Your task to perform on an android device: refresh tabs in the chrome app Image 0: 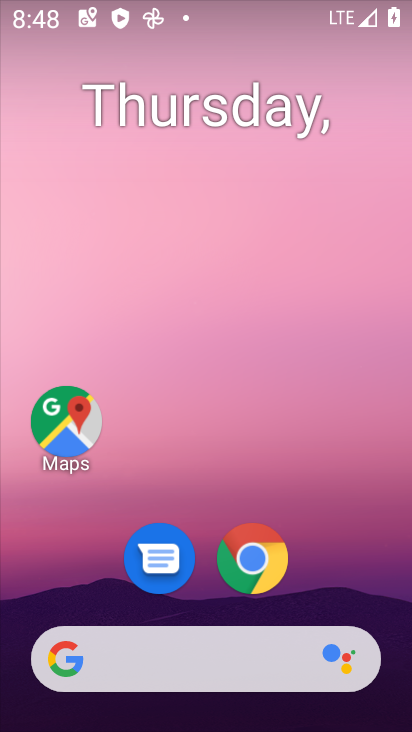
Step 0: click (256, 558)
Your task to perform on an android device: refresh tabs in the chrome app Image 1: 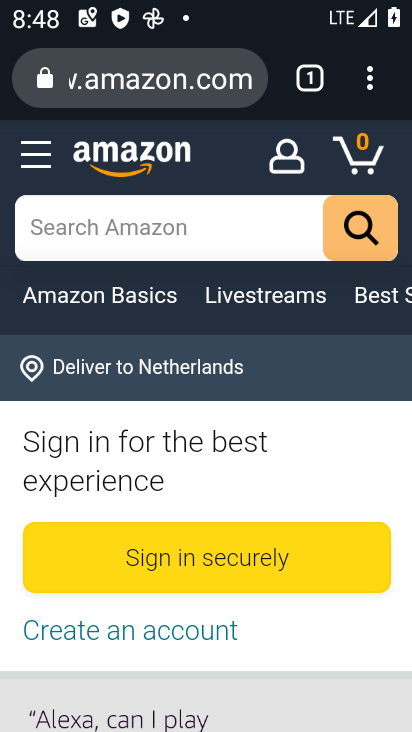
Step 1: click (370, 82)
Your task to perform on an android device: refresh tabs in the chrome app Image 2: 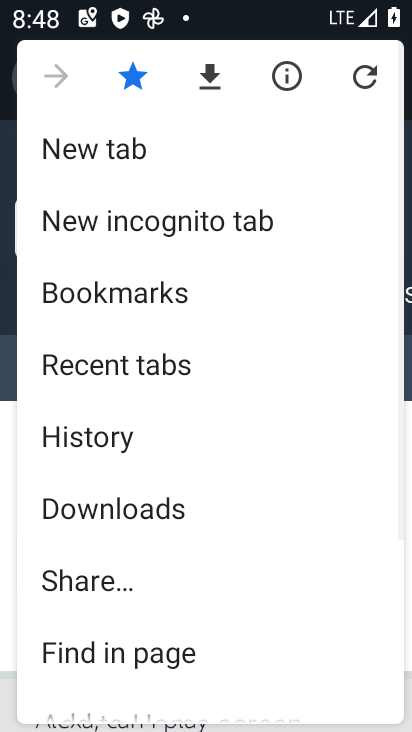
Step 2: click (368, 72)
Your task to perform on an android device: refresh tabs in the chrome app Image 3: 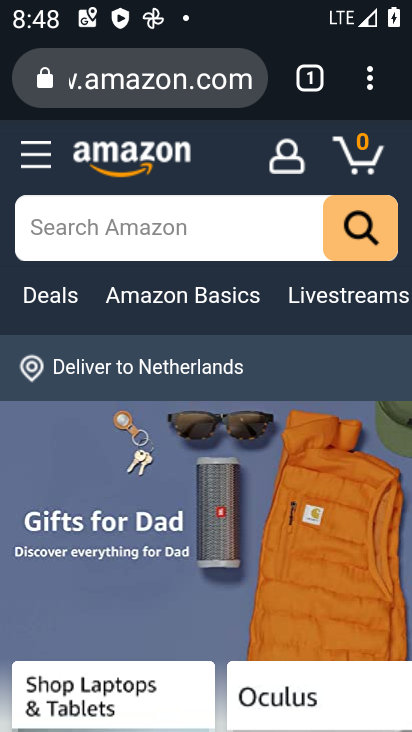
Step 3: task complete